Your task to perform on an android device: Open eBay Image 0: 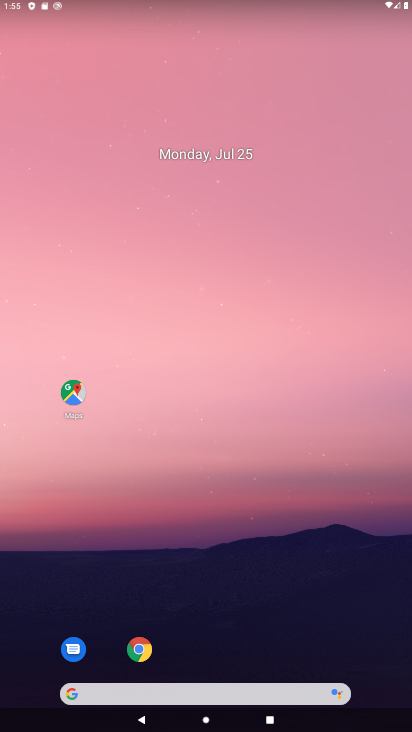
Step 0: click (107, 691)
Your task to perform on an android device: Open eBay Image 1: 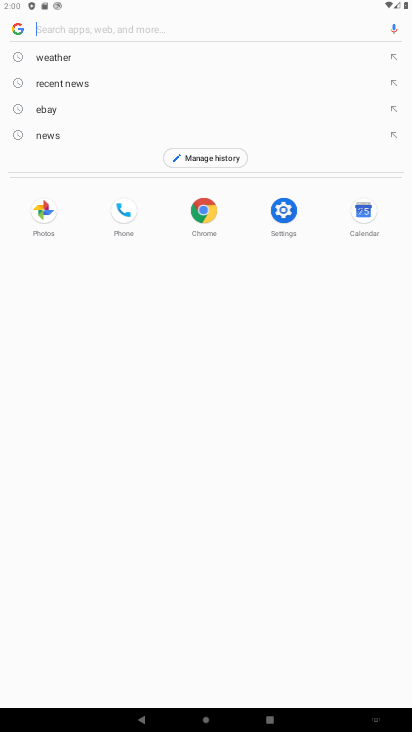
Step 1: click (54, 107)
Your task to perform on an android device: Open eBay Image 2: 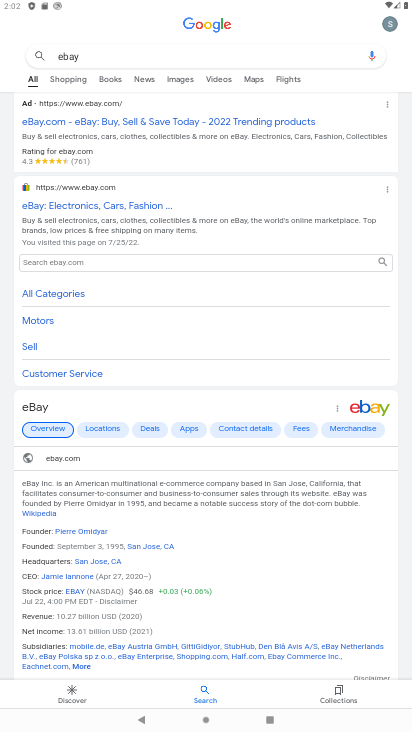
Step 2: click (102, 192)
Your task to perform on an android device: Open eBay Image 3: 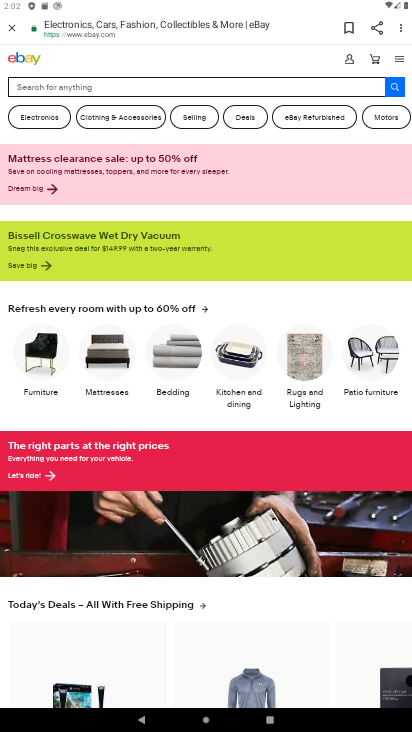
Step 3: task complete